Your task to perform on an android device: Is it going to rain today? Image 0: 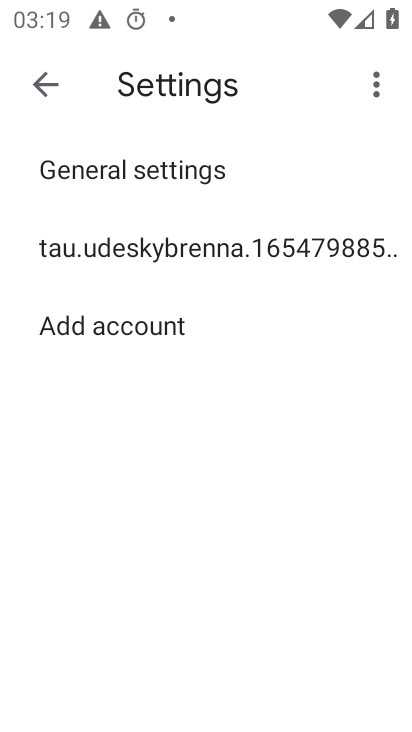
Step 0: press home button
Your task to perform on an android device: Is it going to rain today? Image 1: 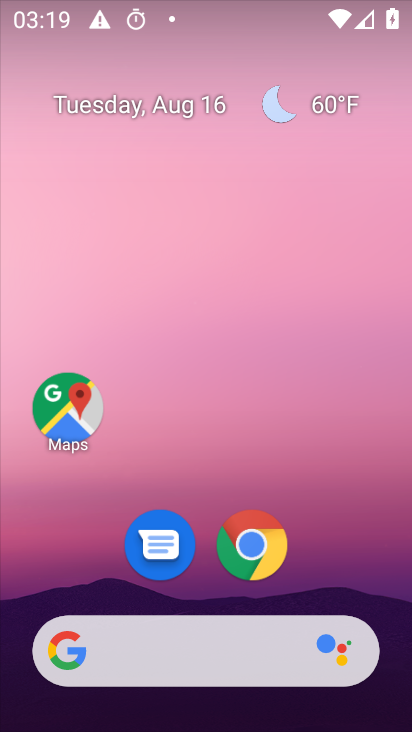
Step 1: drag from (113, 607) to (145, 190)
Your task to perform on an android device: Is it going to rain today? Image 2: 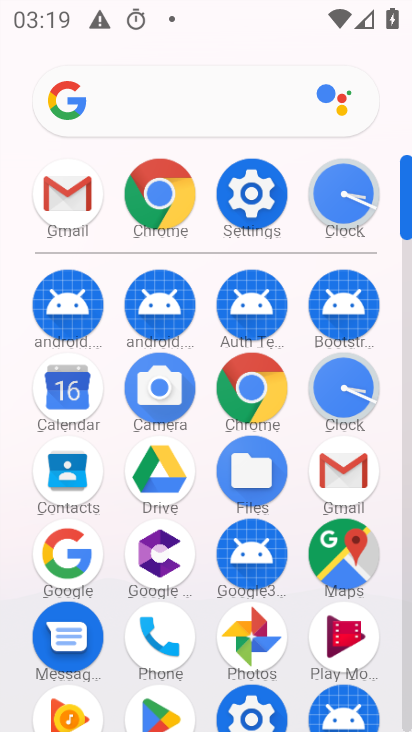
Step 2: click (61, 552)
Your task to perform on an android device: Is it going to rain today? Image 3: 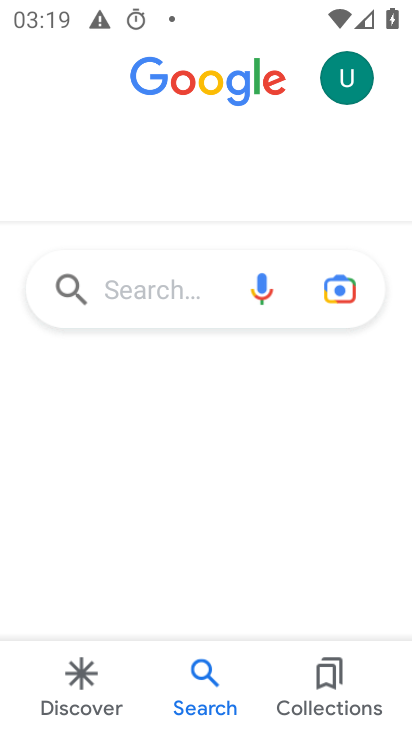
Step 3: click (149, 284)
Your task to perform on an android device: Is it going to rain today? Image 4: 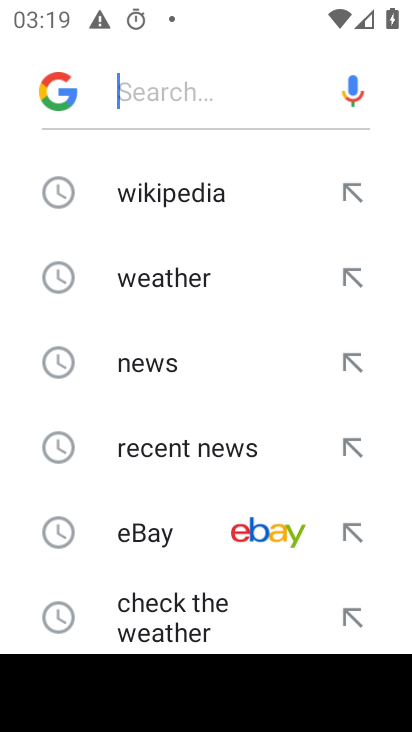
Step 4: drag from (156, 600) to (156, 333)
Your task to perform on an android device: Is it going to rain today? Image 5: 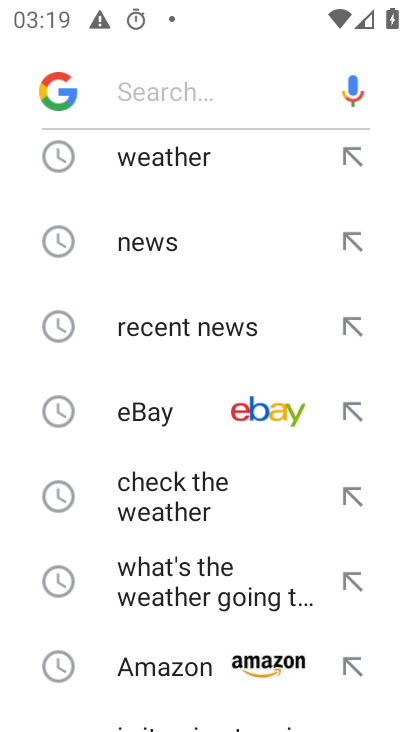
Step 5: click (148, 373)
Your task to perform on an android device: Is it going to rain today? Image 6: 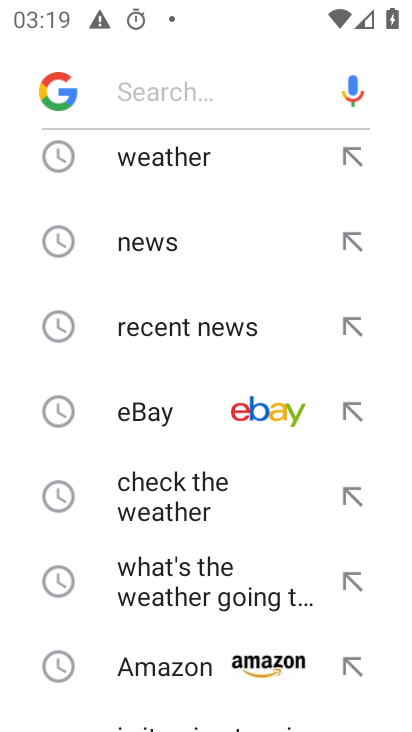
Step 6: drag from (191, 693) to (185, 402)
Your task to perform on an android device: Is it going to rain today? Image 7: 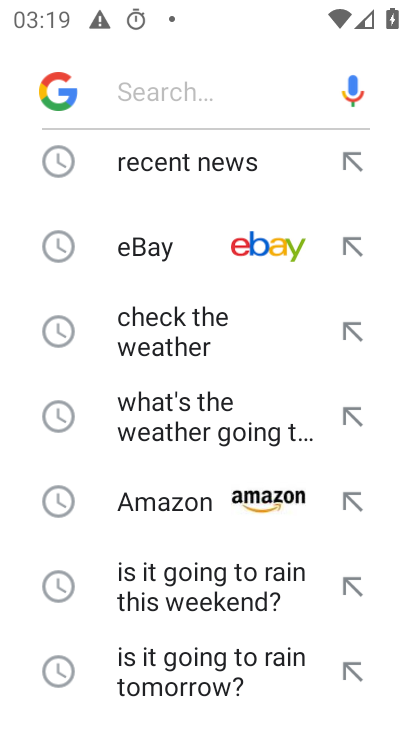
Step 7: drag from (173, 692) to (184, 400)
Your task to perform on an android device: Is it going to rain today? Image 8: 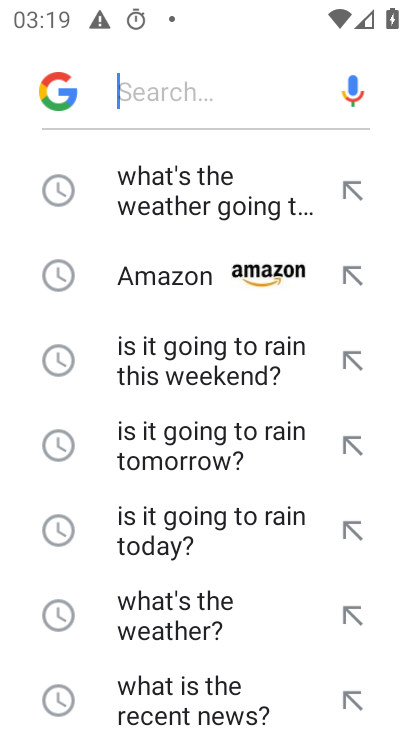
Step 8: drag from (193, 666) to (194, 442)
Your task to perform on an android device: Is it going to rain today? Image 9: 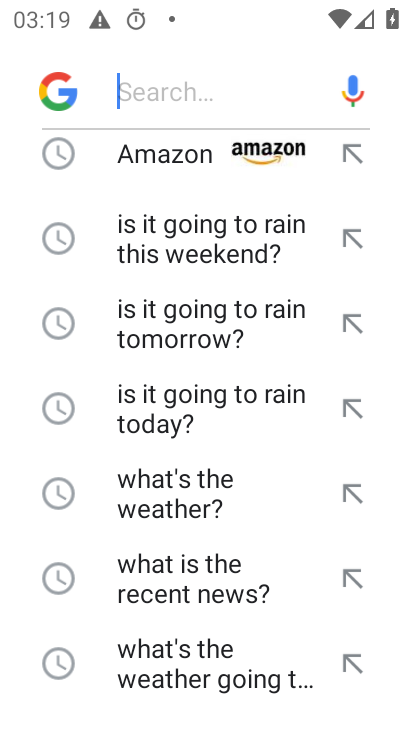
Step 9: click (185, 410)
Your task to perform on an android device: Is it going to rain today? Image 10: 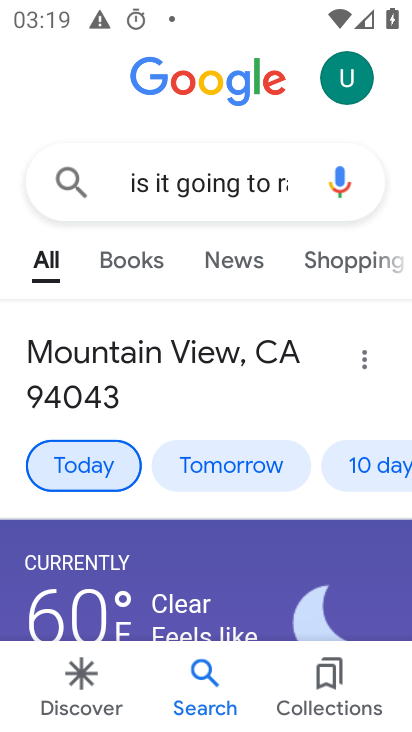
Step 10: task complete